Your task to perform on an android device: Go to CNN.com Image 0: 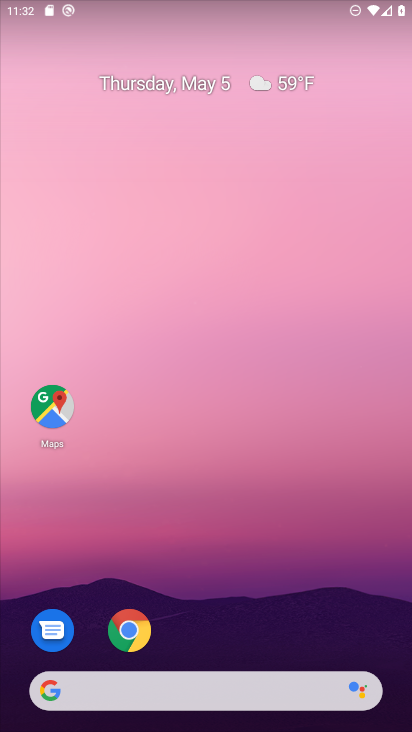
Step 0: click (131, 624)
Your task to perform on an android device: Go to CNN.com Image 1: 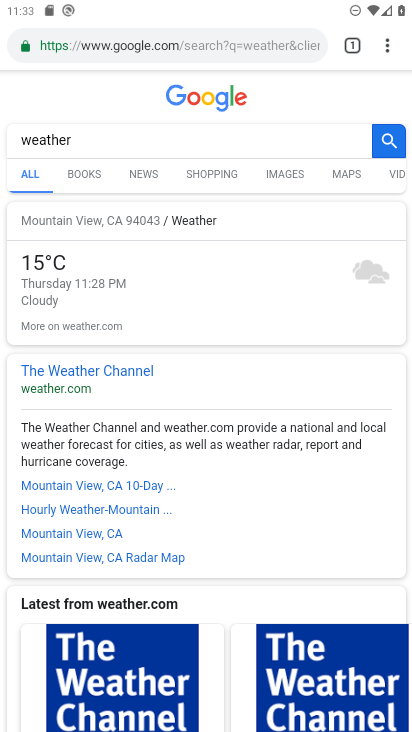
Step 1: click (140, 37)
Your task to perform on an android device: Go to CNN.com Image 2: 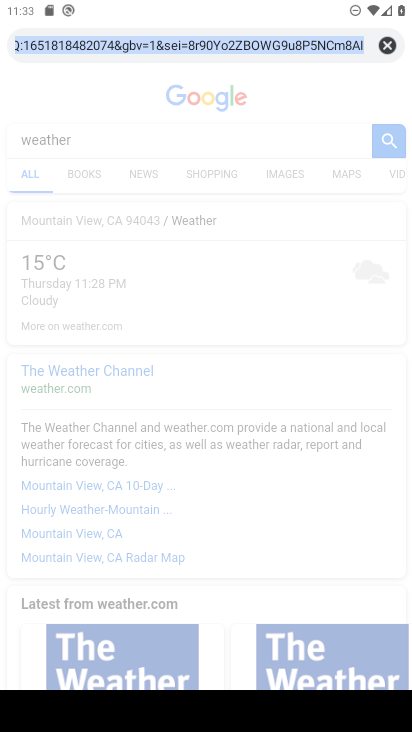
Step 2: type "cnn.com"
Your task to perform on an android device: Go to CNN.com Image 3: 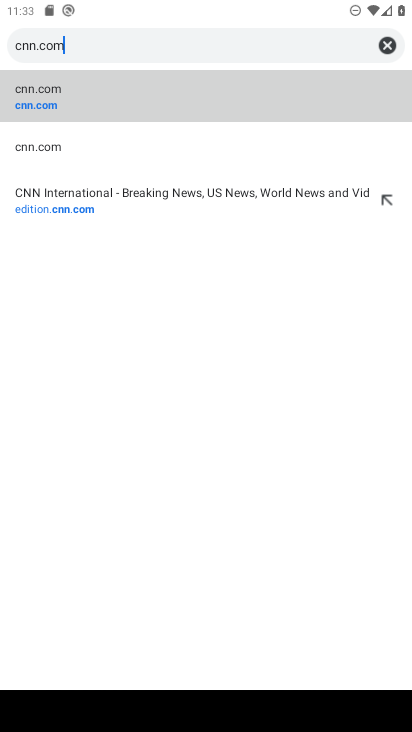
Step 3: click (57, 86)
Your task to perform on an android device: Go to CNN.com Image 4: 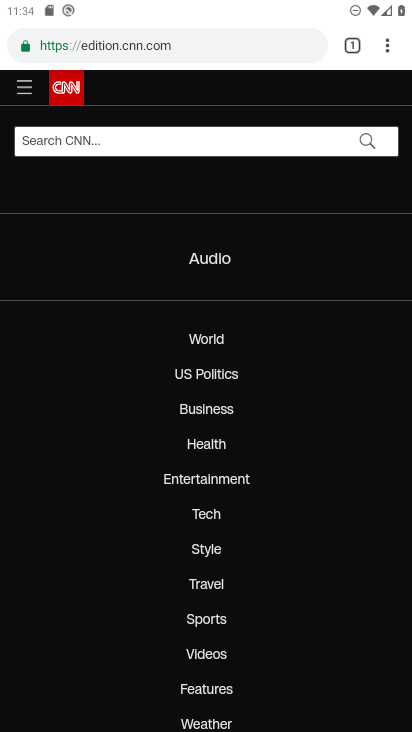
Step 4: task complete